Your task to perform on an android device: turn on notifications settings in the gmail app Image 0: 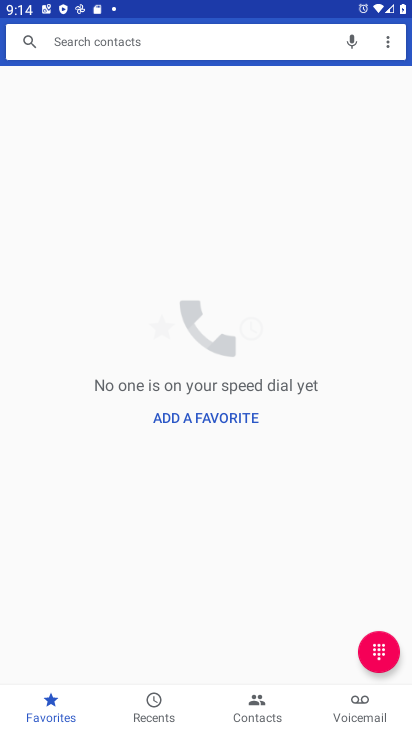
Step 0: press home button
Your task to perform on an android device: turn on notifications settings in the gmail app Image 1: 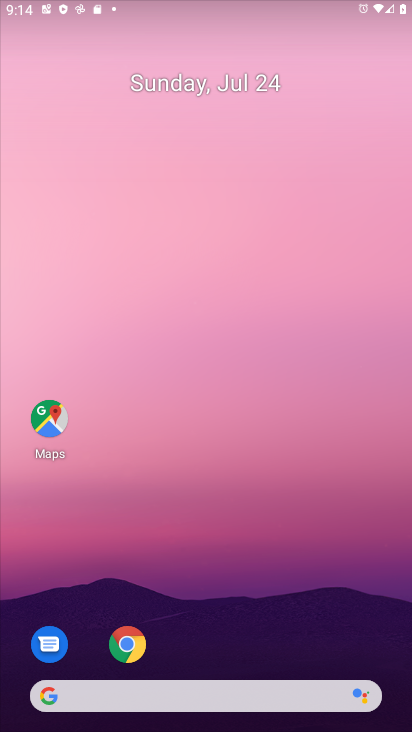
Step 1: click (265, 266)
Your task to perform on an android device: turn on notifications settings in the gmail app Image 2: 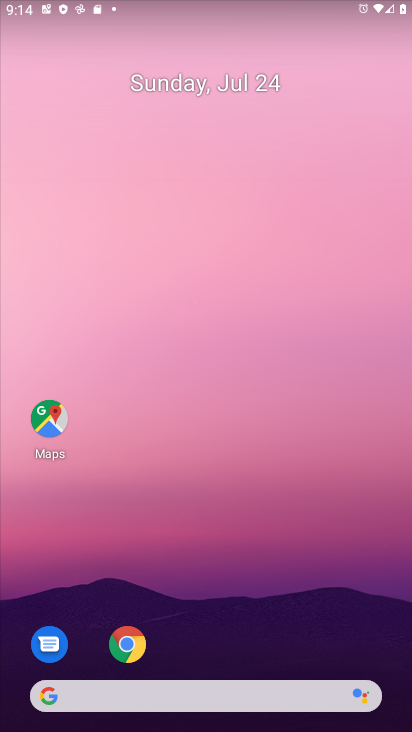
Step 2: drag from (273, 572) to (199, 161)
Your task to perform on an android device: turn on notifications settings in the gmail app Image 3: 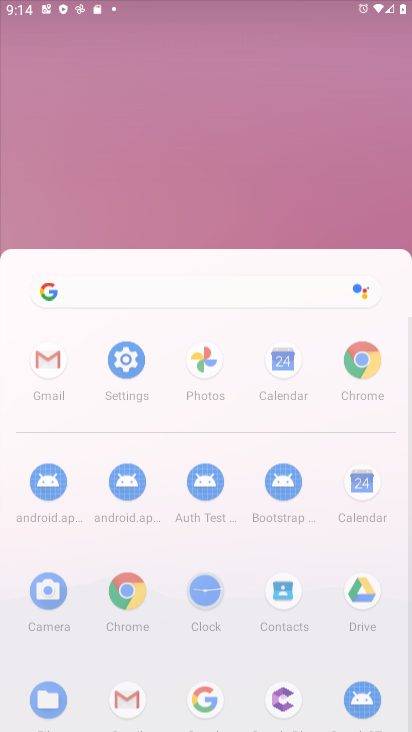
Step 3: drag from (231, 485) to (231, 114)
Your task to perform on an android device: turn on notifications settings in the gmail app Image 4: 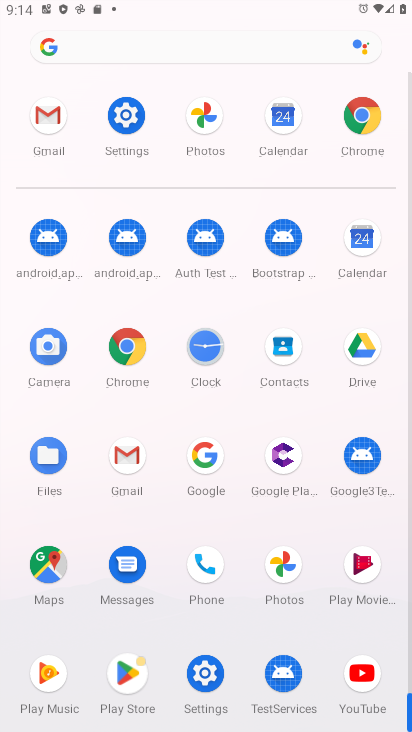
Step 4: drag from (278, 396) to (278, 187)
Your task to perform on an android device: turn on notifications settings in the gmail app Image 5: 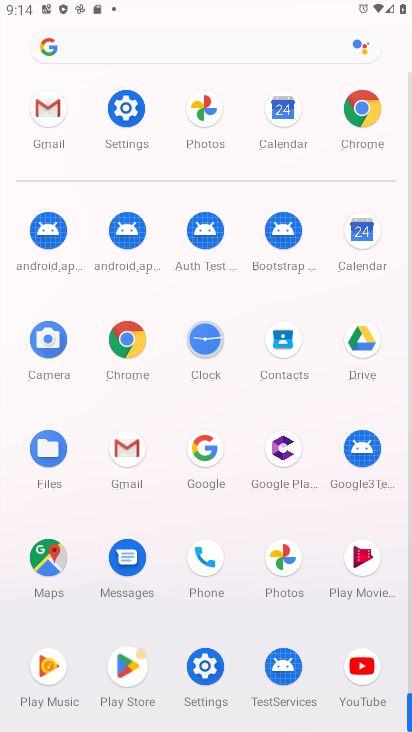
Step 5: click (132, 459)
Your task to perform on an android device: turn on notifications settings in the gmail app Image 6: 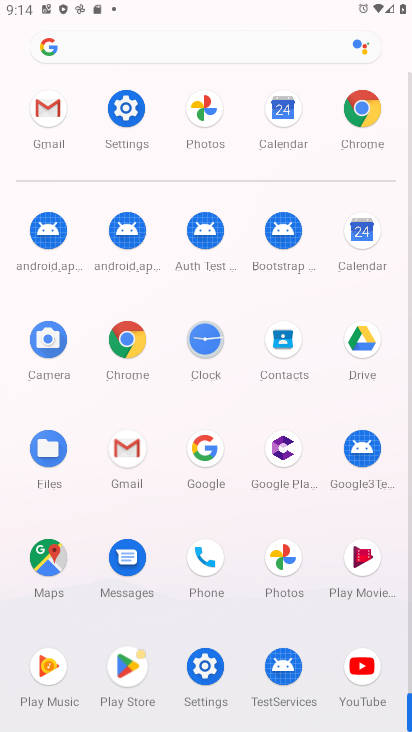
Step 6: click (132, 458)
Your task to perform on an android device: turn on notifications settings in the gmail app Image 7: 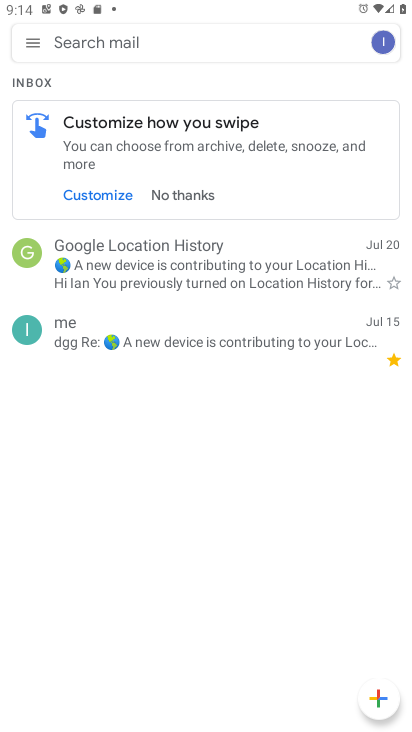
Step 7: click (140, 454)
Your task to perform on an android device: turn on notifications settings in the gmail app Image 8: 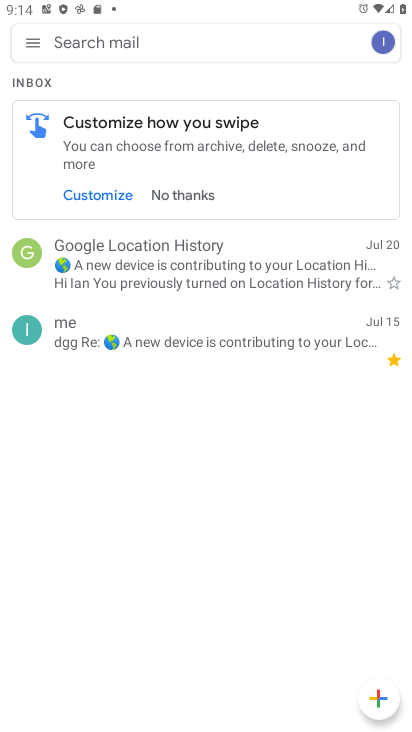
Step 8: click (37, 45)
Your task to perform on an android device: turn on notifications settings in the gmail app Image 9: 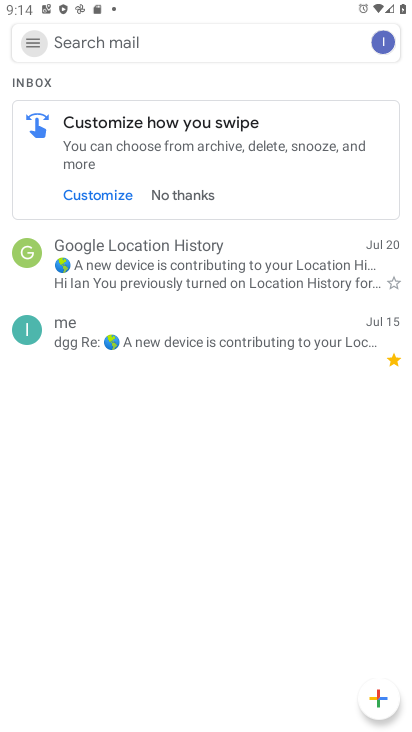
Step 9: click (39, 48)
Your task to perform on an android device: turn on notifications settings in the gmail app Image 10: 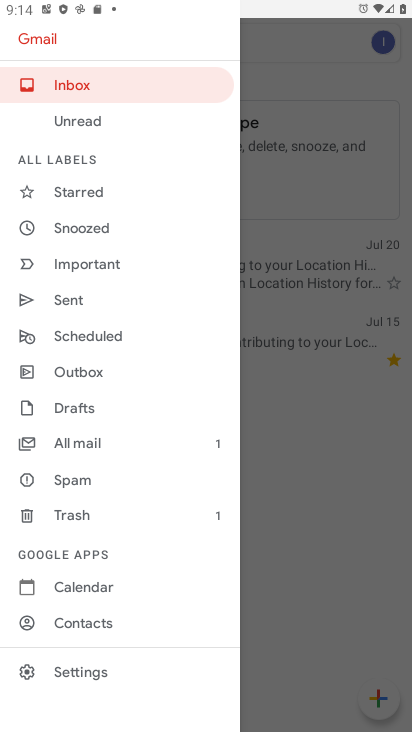
Step 10: click (89, 669)
Your task to perform on an android device: turn on notifications settings in the gmail app Image 11: 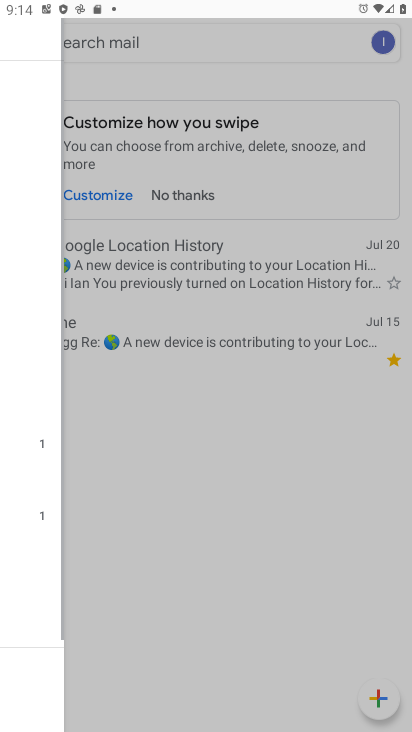
Step 11: click (88, 667)
Your task to perform on an android device: turn on notifications settings in the gmail app Image 12: 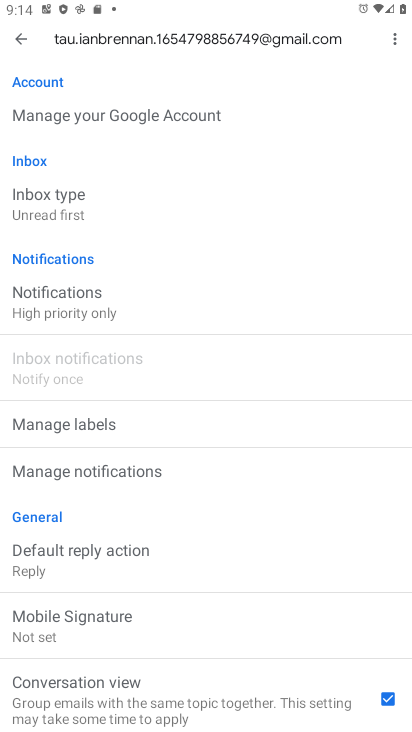
Step 12: drag from (104, 547) to (98, 132)
Your task to perform on an android device: turn on notifications settings in the gmail app Image 13: 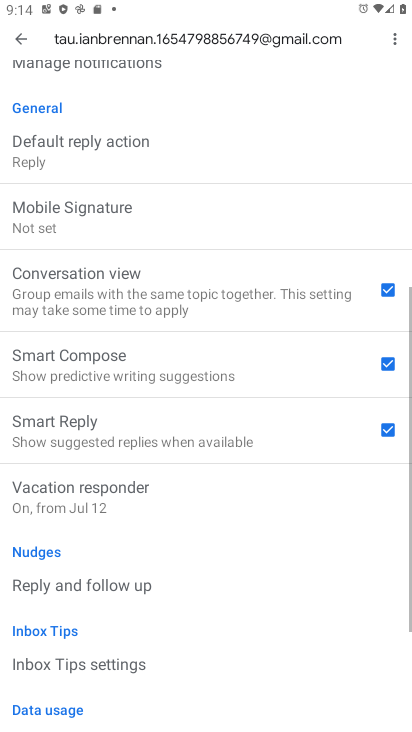
Step 13: drag from (124, 381) to (125, 197)
Your task to perform on an android device: turn on notifications settings in the gmail app Image 14: 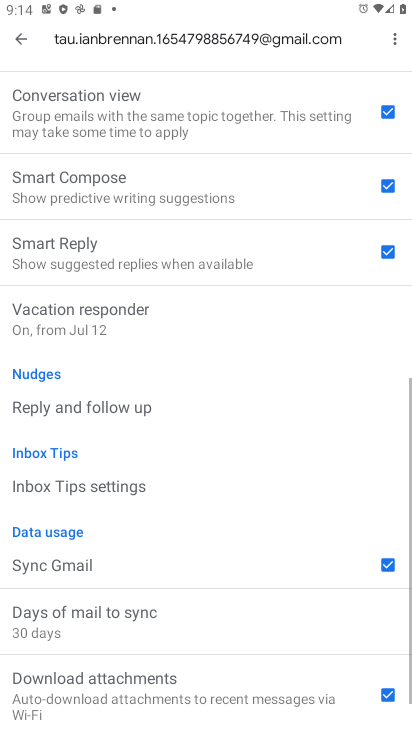
Step 14: drag from (125, 577) to (97, 218)
Your task to perform on an android device: turn on notifications settings in the gmail app Image 15: 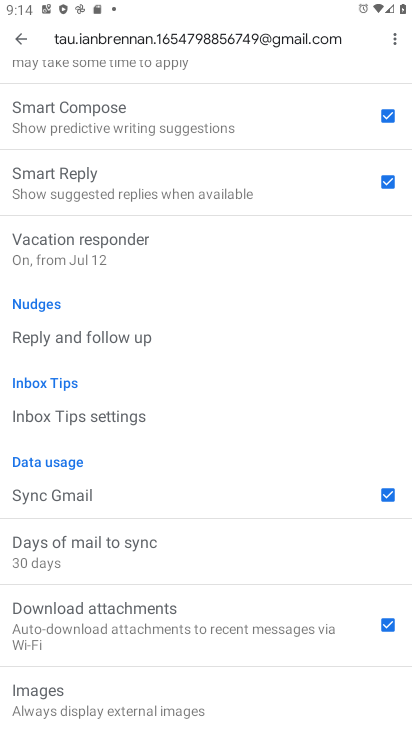
Step 15: drag from (93, 317) to (136, 603)
Your task to perform on an android device: turn on notifications settings in the gmail app Image 16: 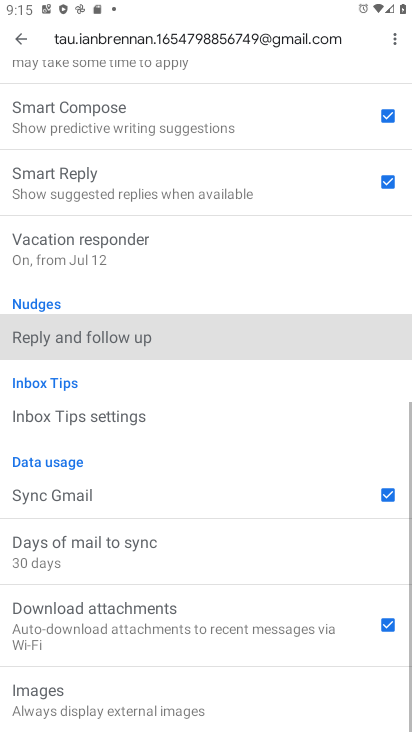
Step 16: drag from (127, 246) to (130, 609)
Your task to perform on an android device: turn on notifications settings in the gmail app Image 17: 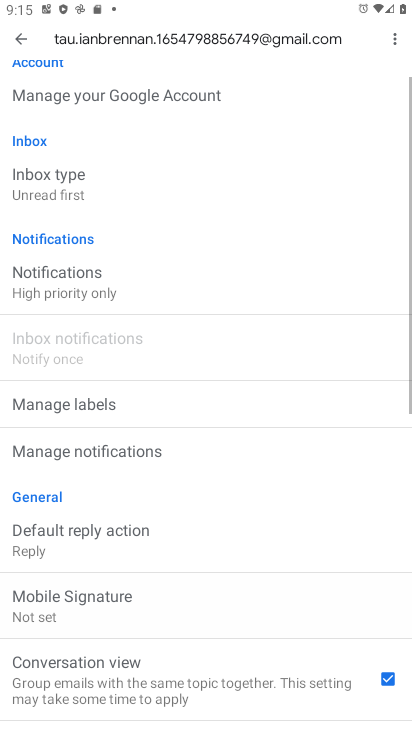
Step 17: drag from (75, 182) to (182, 724)
Your task to perform on an android device: turn on notifications settings in the gmail app Image 18: 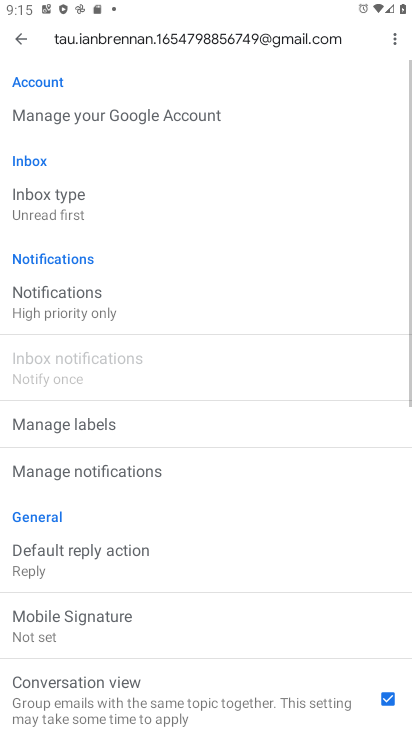
Step 18: click (57, 318)
Your task to perform on an android device: turn on notifications settings in the gmail app Image 19: 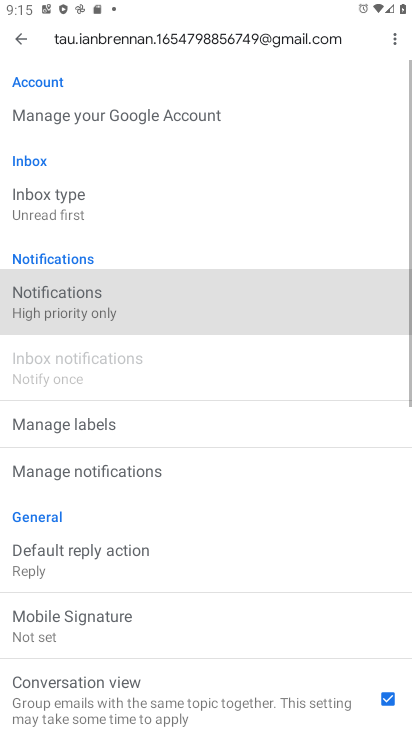
Step 19: click (60, 319)
Your task to perform on an android device: turn on notifications settings in the gmail app Image 20: 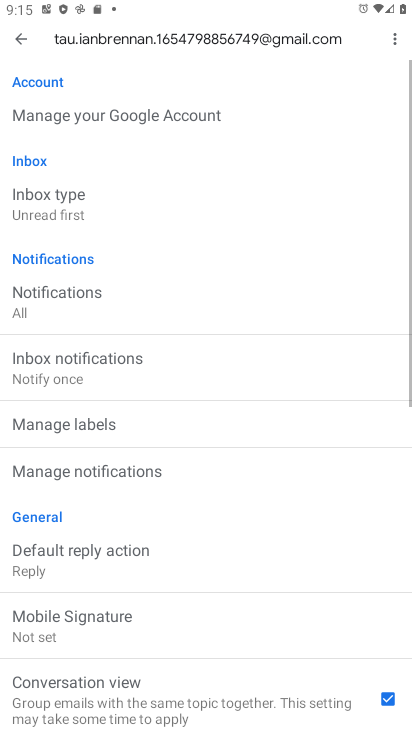
Step 20: click (60, 303)
Your task to perform on an android device: turn on notifications settings in the gmail app Image 21: 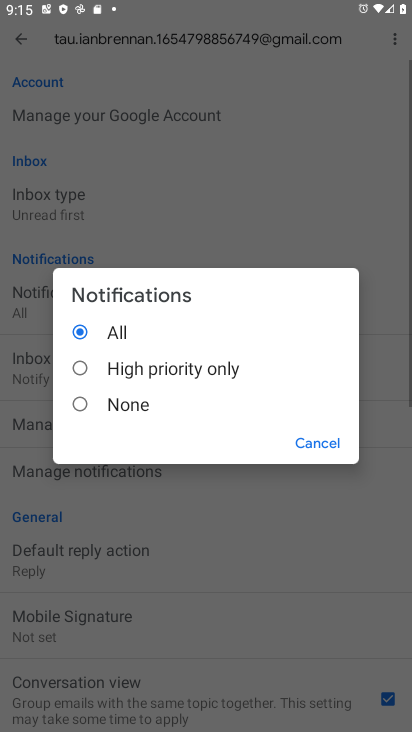
Step 21: click (288, 176)
Your task to perform on an android device: turn on notifications settings in the gmail app Image 22: 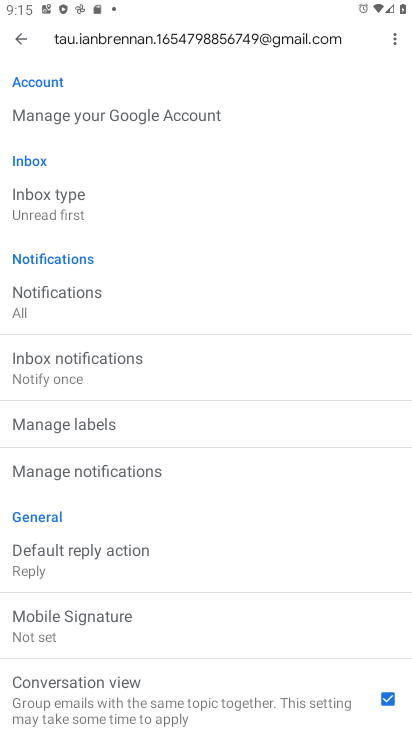
Step 22: task complete